Your task to perform on an android device: Search for "razer huntsman" on costco.com, select the first entry, add it to the cart, then select checkout. Image 0: 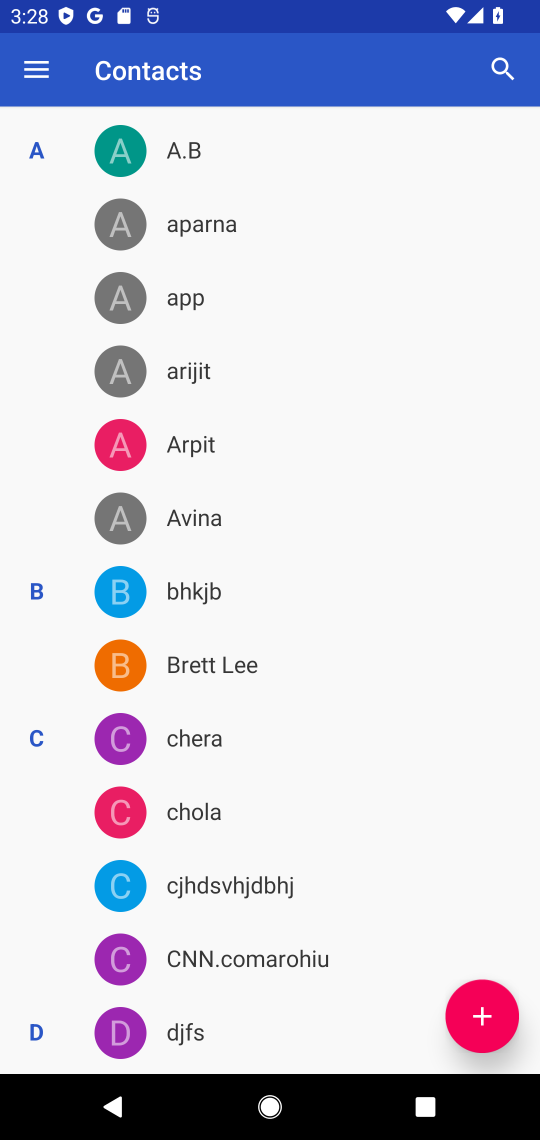
Step 0: press home button
Your task to perform on an android device: Search for "razer huntsman" on costco.com, select the first entry, add it to the cart, then select checkout. Image 1: 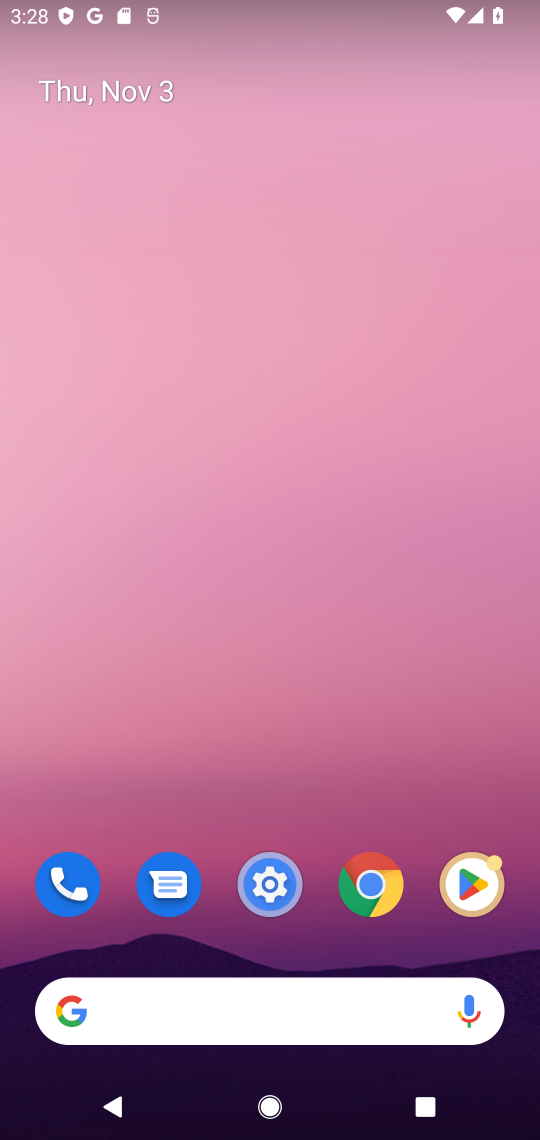
Step 1: press home button
Your task to perform on an android device: Search for "razer huntsman" on costco.com, select the first entry, add it to the cart, then select checkout. Image 2: 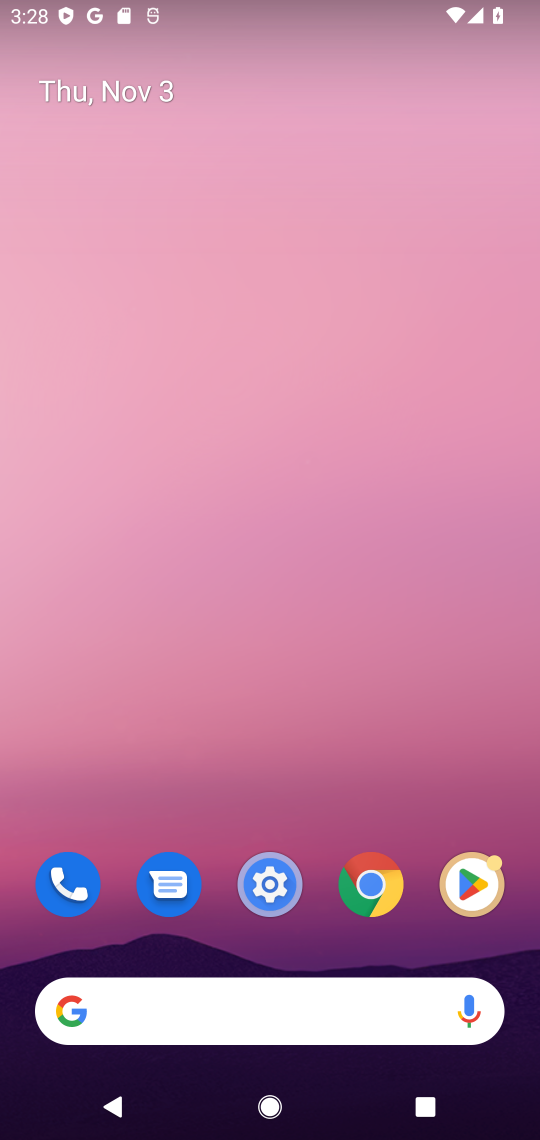
Step 2: click (109, 1011)
Your task to perform on an android device: Search for "razer huntsman" on costco.com, select the first entry, add it to the cart, then select checkout. Image 3: 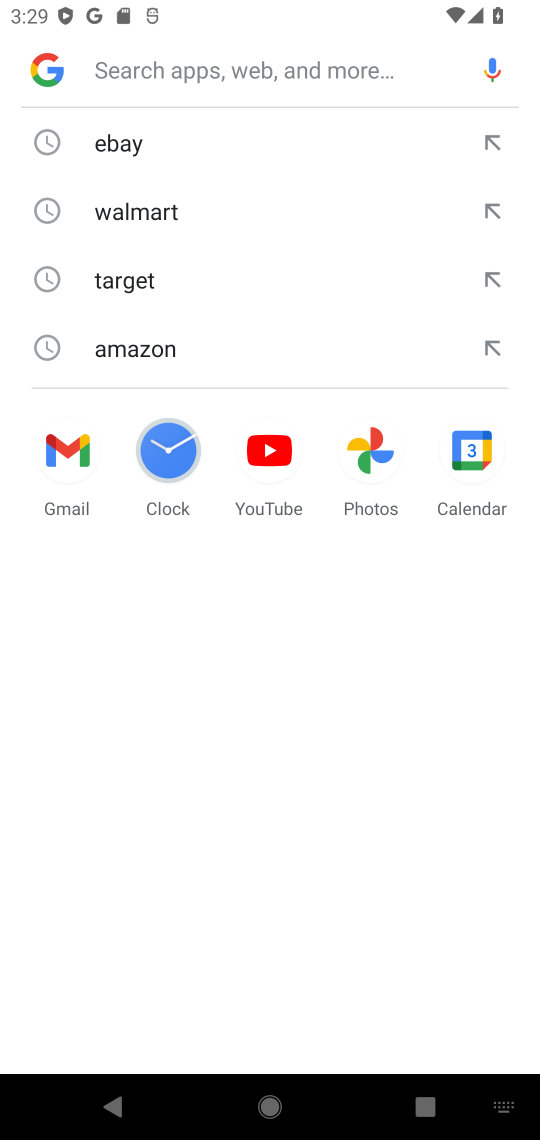
Step 3: type "costco.com"
Your task to perform on an android device: Search for "razer huntsman" on costco.com, select the first entry, add it to the cart, then select checkout. Image 4: 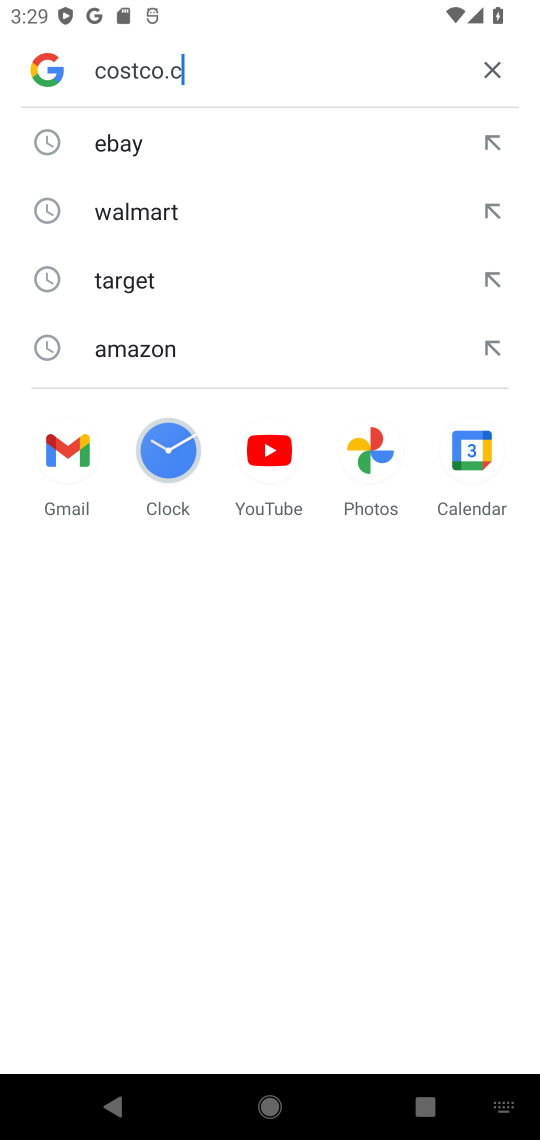
Step 4: press enter
Your task to perform on an android device: Search for "razer huntsman" on costco.com, select the first entry, add it to the cart, then select checkout. Image 5: 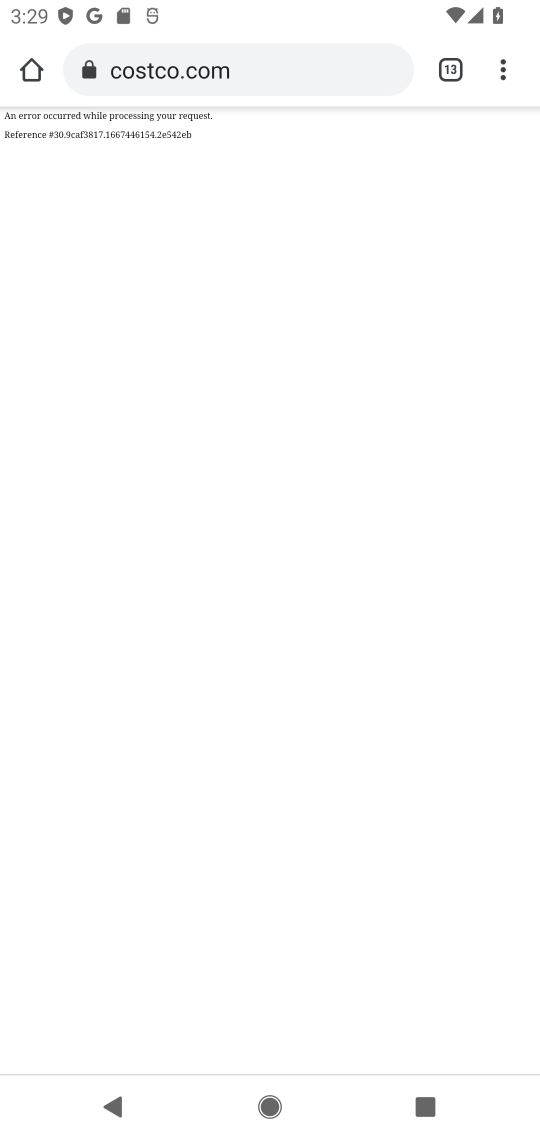
Step 5: task complete